Your task to perform on an android device: toggle javascript in the chrome app Image 0: 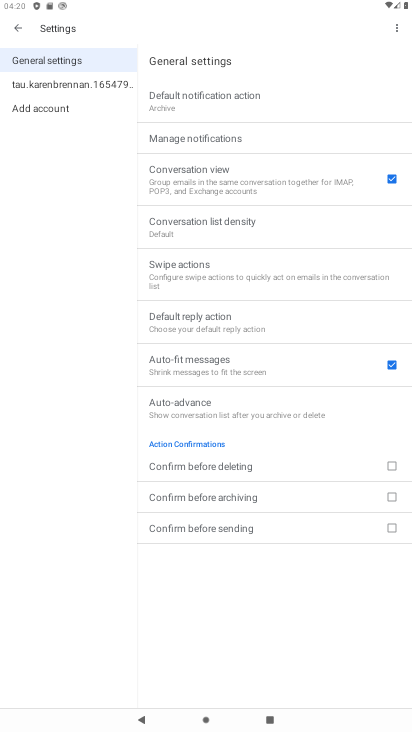
Step 0: press home button
Your task to perform on an android device: toggle javascript in the chrome app Image 1: 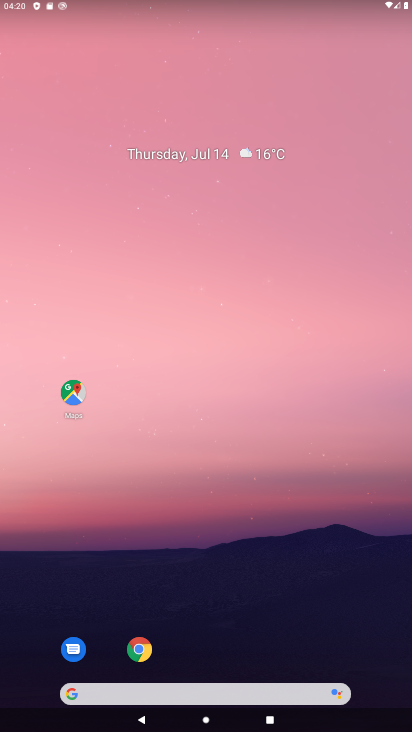
Step 1: drag from (294, 599) to (258, 0)
Your task to perform on an android device: toggle javascript in the chrome app Image 2: 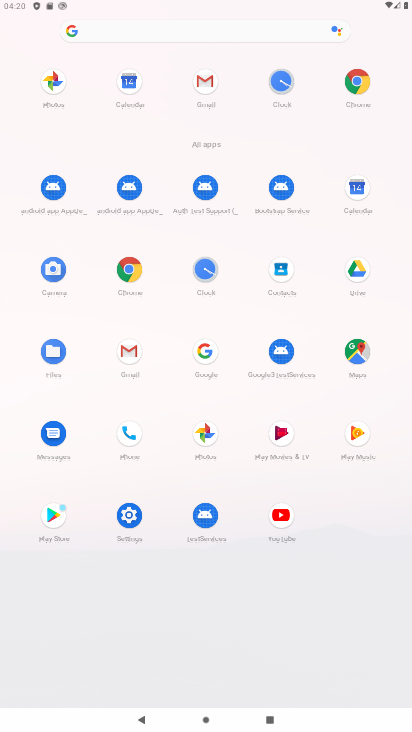
Step 2: click (356, 80)
Your task to perform on an android device: toggle javascript in the chrome app Image 3: 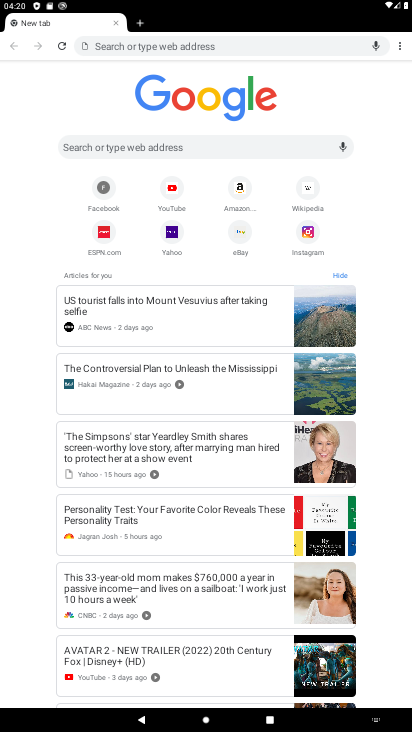
Step 3: drag from (397, 49) to (303, 220)
Your task to perform on an android device: toggle javascript in the chrome app Image 4: 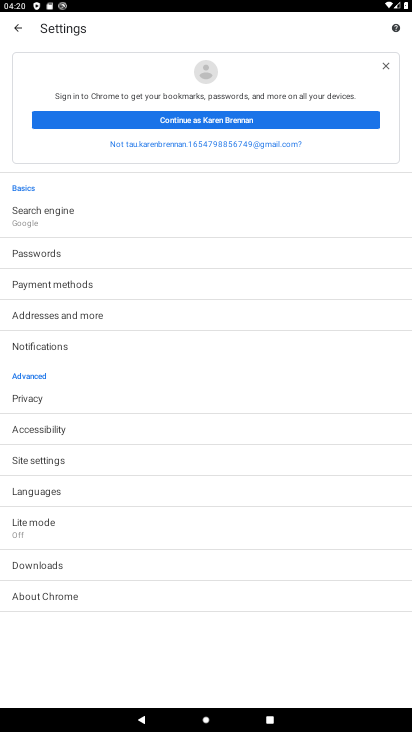
Step 4: click (54, 459)
Your task to perform on an android device: toggle javascript in the chrome app Image 5: 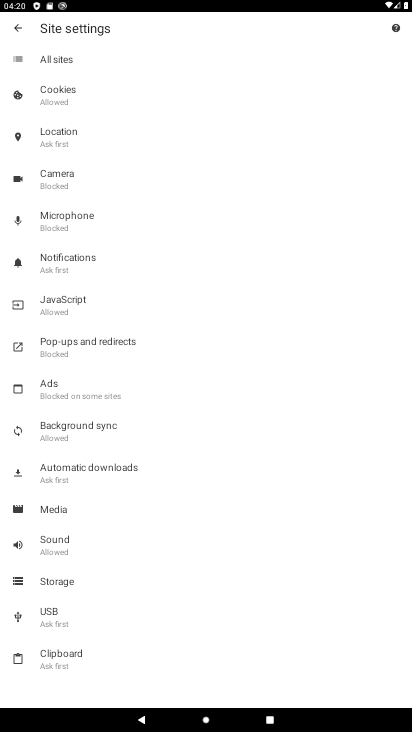
Step 5: click (56, 300)
Your task to perform on an android device: toggle javascript in the chrome app Image 6: 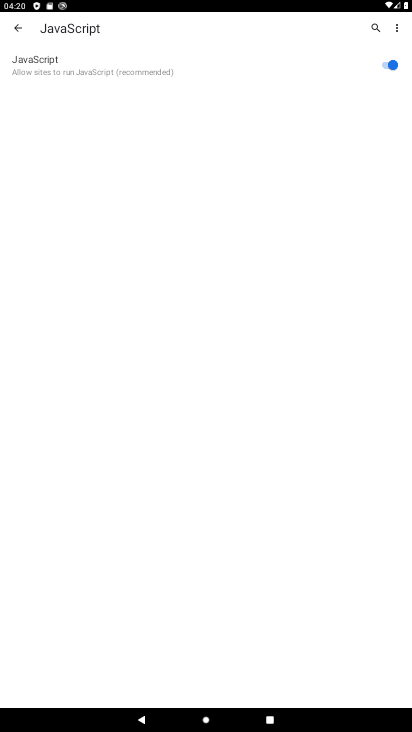
Step 6: click (391, 57)
Your task to perform on an android device: toggle javascript in the chrome app Image 7: 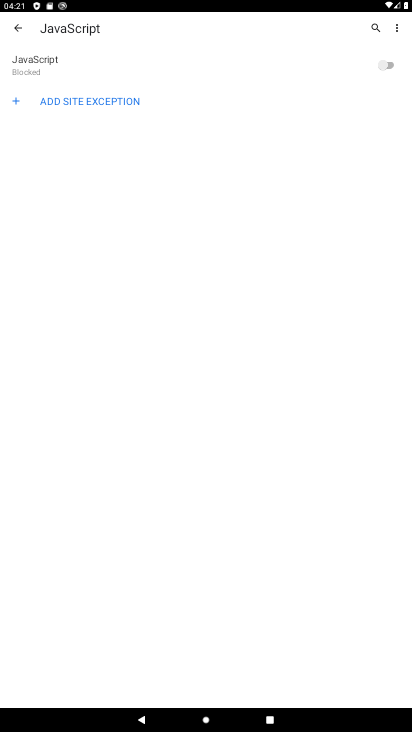
Step 7: task complete